Your task to perform on an android device: toggle notification dots Image 0: 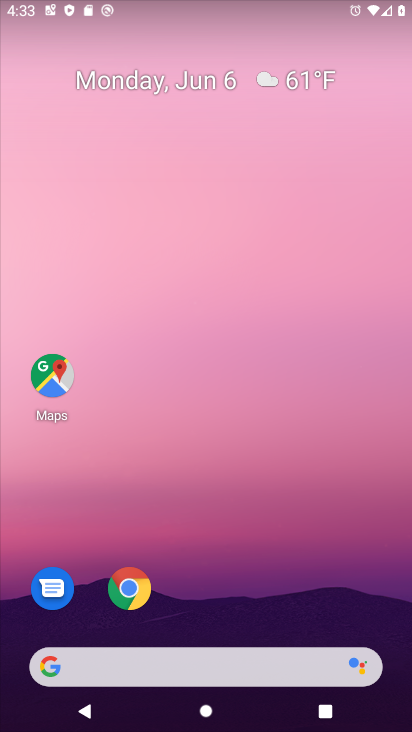
Step 0: drag from (189, 319) to (167, 173)
Your task to perform on an android device: toggle notification dots Image 1: 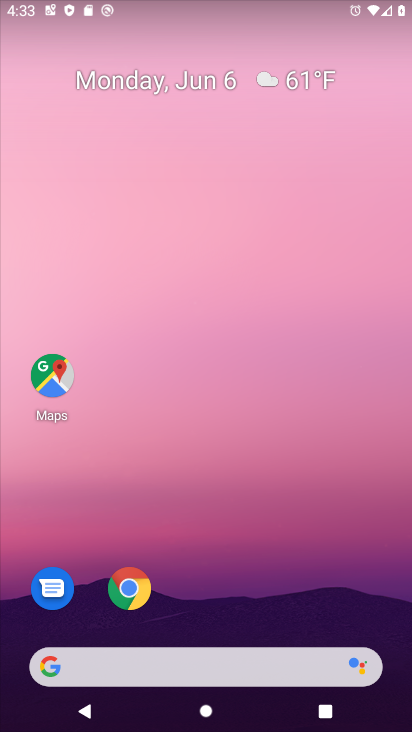
Step 1: drag from (232, 607) to (199, 173)
Your task to perform on an android device: toggle notification dots Image 2: 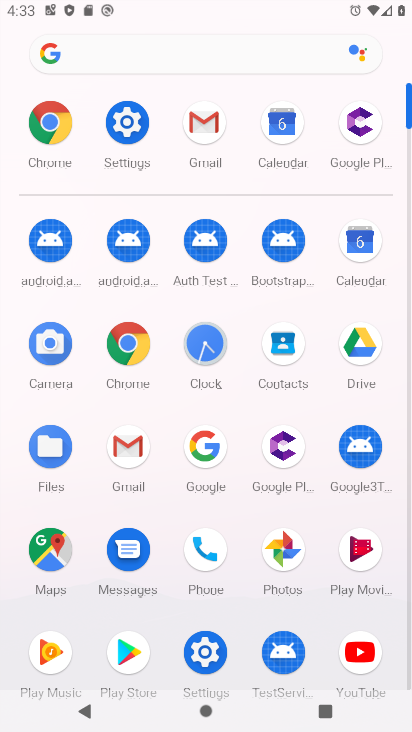
Step 2: click (131, 121)
Your task to perform on an android device: toggle notification dots Image 3: 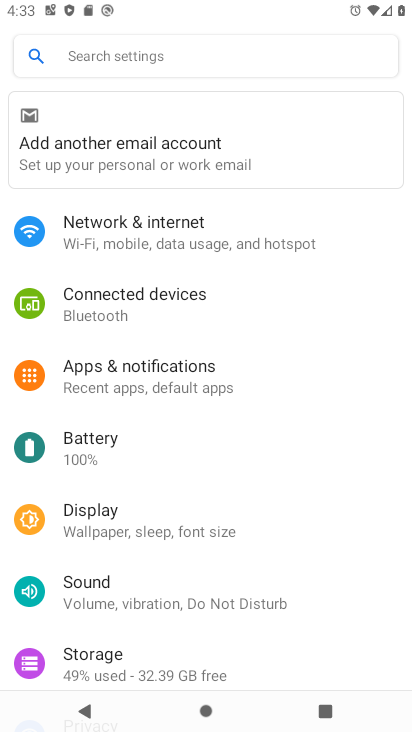
Step 3: click (172, 374)
Your task to perform on an android device: toggle notification dots Image 4: 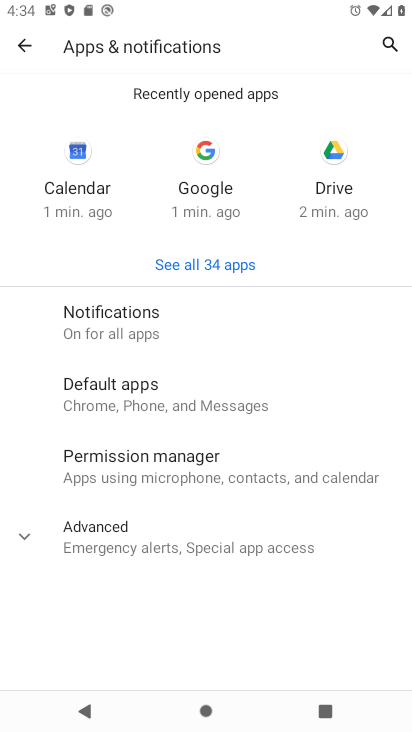
Step 4: click (150, 343)
Your task to perform on an android device: toggle notification dots Image 5: 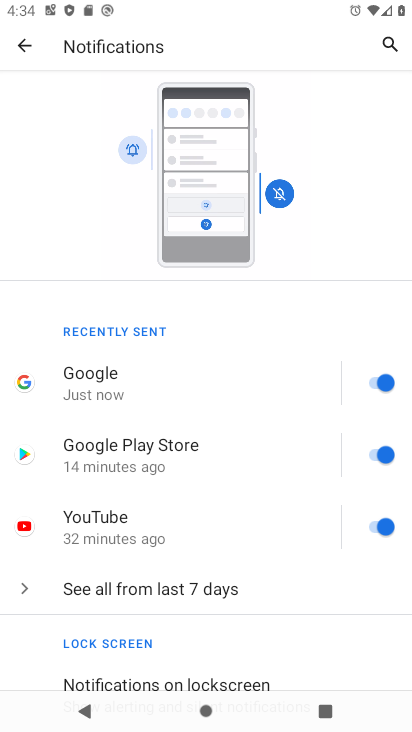
Step 5: drag from (219, 640) to (135, 58)
Your task to perform on an android device: toggle notification dots Image 6: 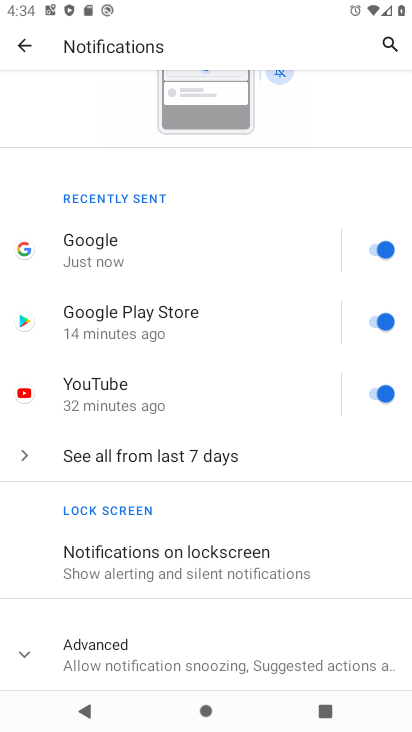
Step 6: click (237, 668)
Your task to perform on an android device: toggle notification dots Image 7: 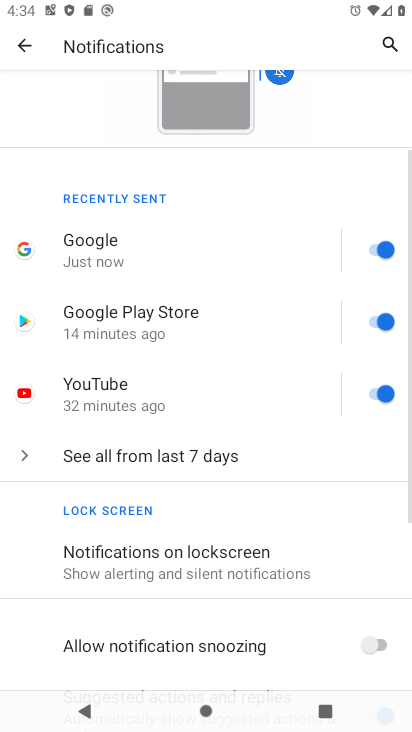
Step 7: drag from (237, 668) to (149, 139)
Your task to perform on an android device: toggle notification dots Image 8: 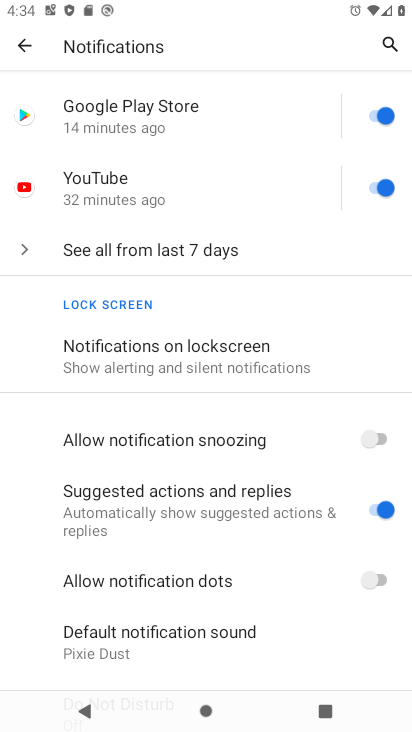
Step 8: click (378, 590)
Your task to perform on an android device: toggle notification dots Image 9: 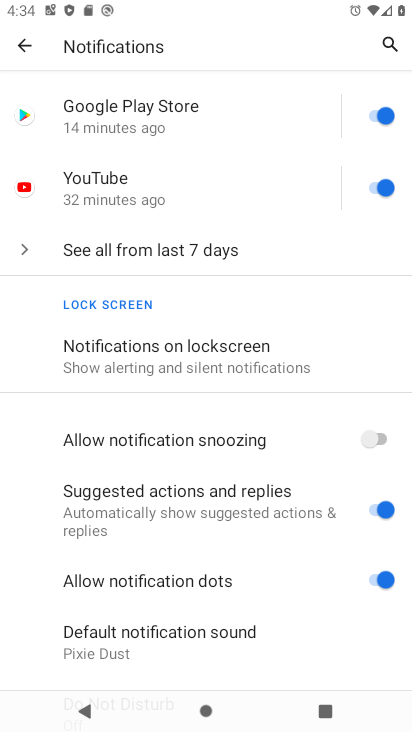
Step 9: task complete